Your task to perform on an android device: turn pop-ups on in chrome Image 0: 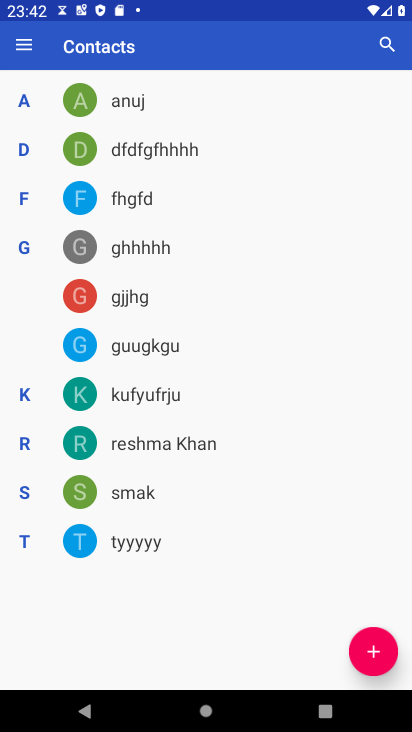
Step 0: press home button
Your task to perform on an android device: turn pop-ups on in chrome Image 1: 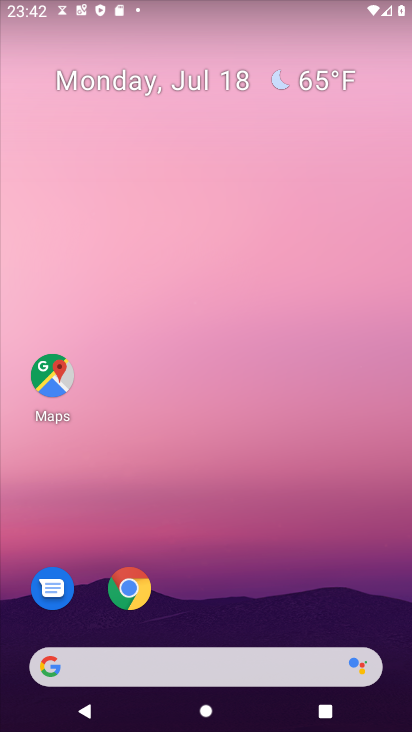
Step 1: click (121, 581)
Your task to perform on an android device: turn pop-ups on in chrome Image 2: 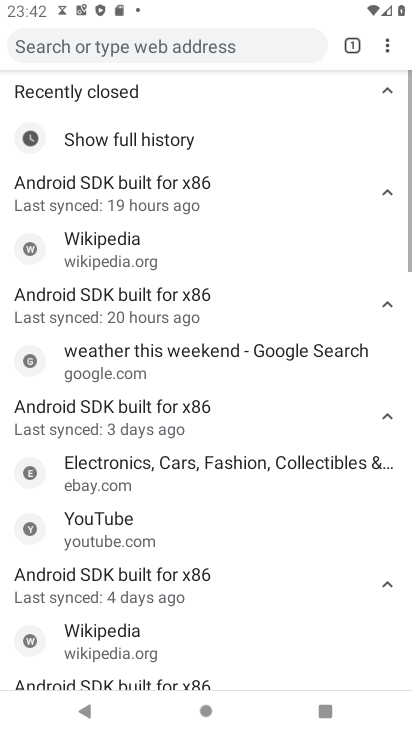
Step 2: drag from (385, 44) to (217, 372)
Your task to perform on an android device: turn pop-ups on in chrome Image 3: 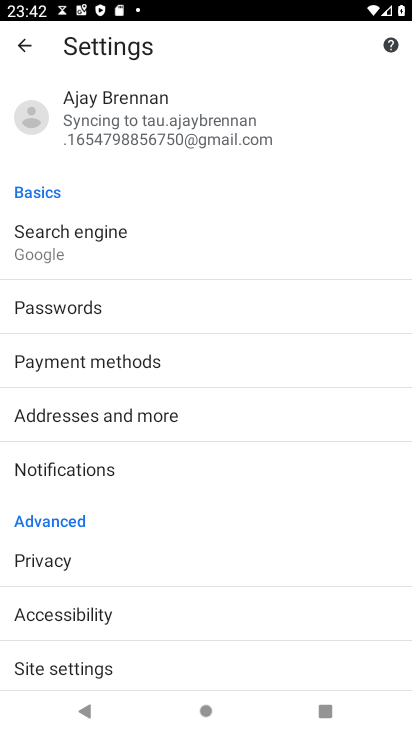
Step 3: click (43, 667)
Your task to perform on an android device: turn pop-ups on in chrome Image 4: 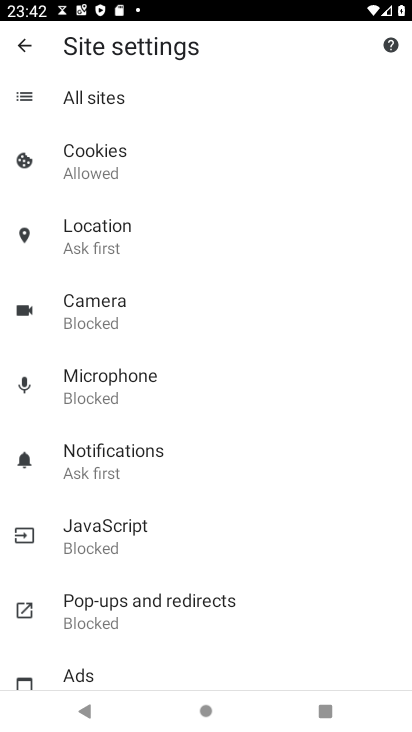
Step 4: click (199, 603)
Your task to perform on an android device: turn pop-ups on in chrome Image 5: 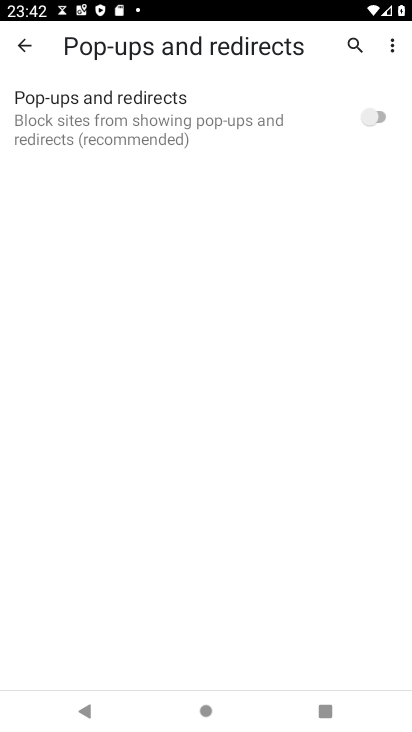
Step 5: click (369, 109)
Your task to perform on an android device: turn pop-ups on in chrome Image 6: 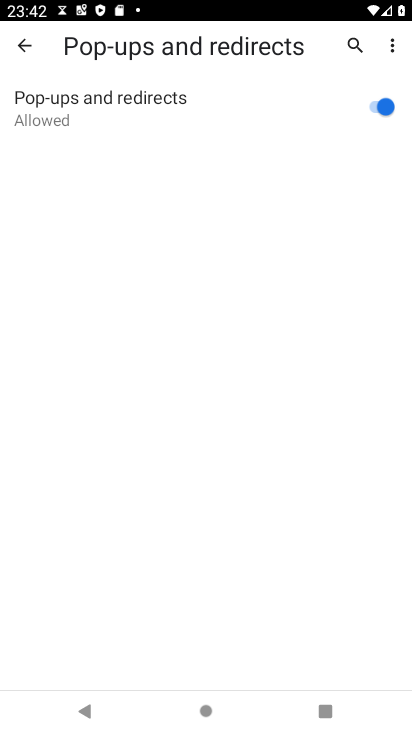
Step 6: task complete